Your task to perform on an android device: change your default location settings in chrome Image 0: 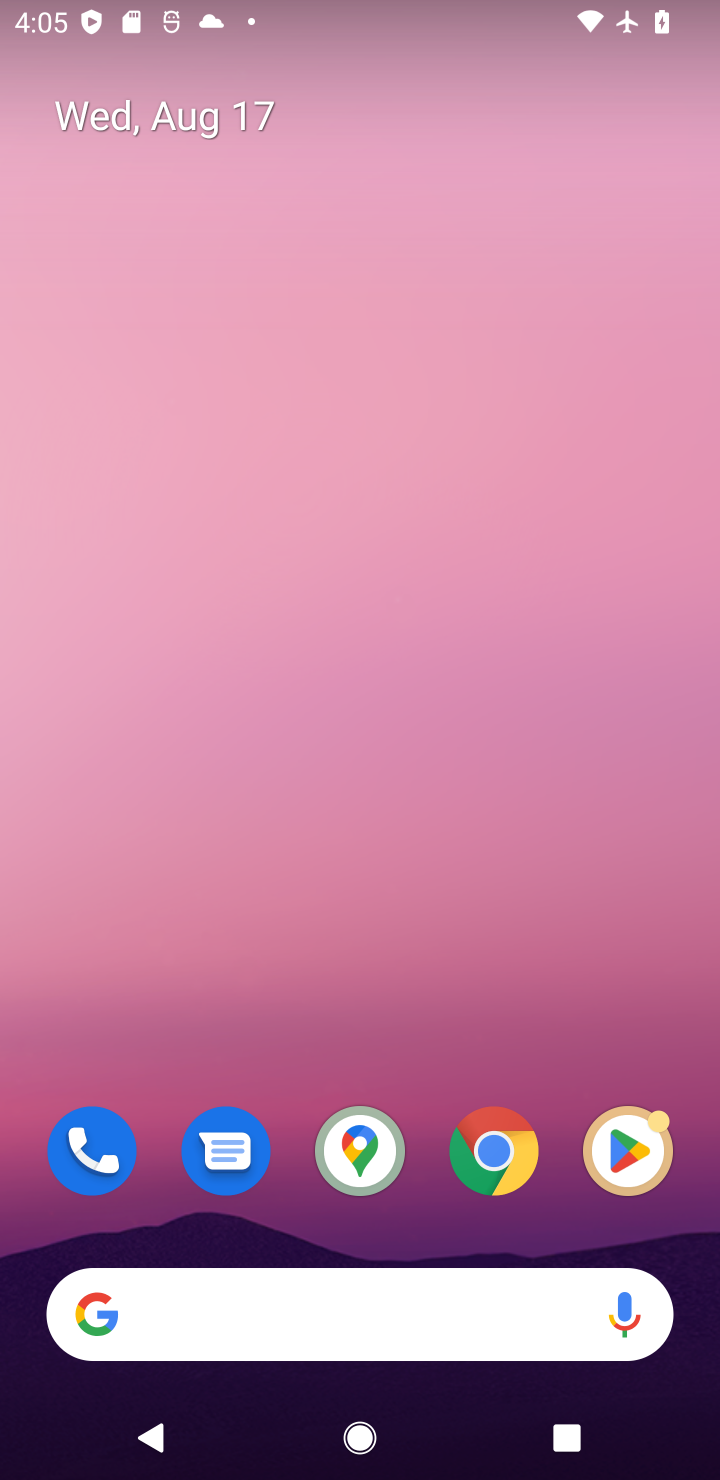
Step 0: drag from (250, 1208) to (250, 308)
Your task to perform on an android device: change your default location settings in chrome Image 1: 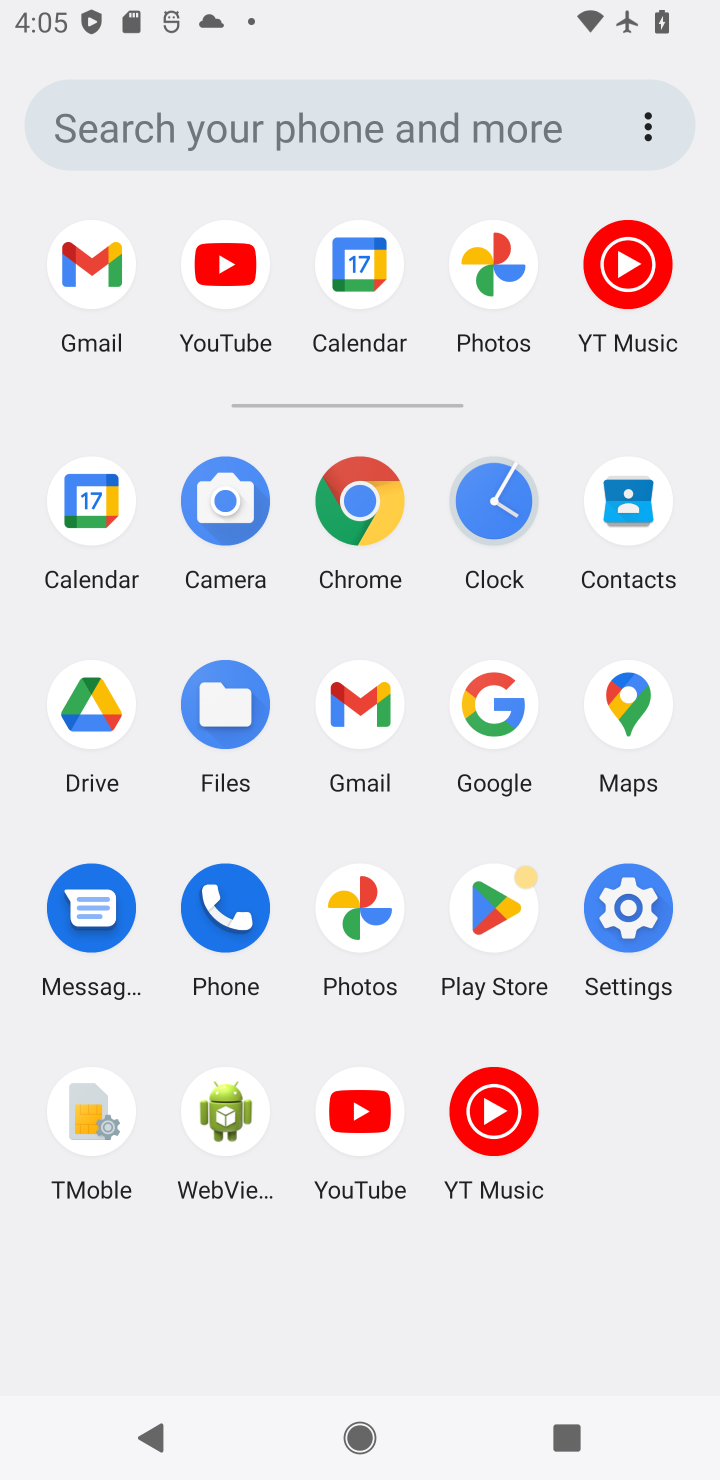
Step 1: click (373, 480)
Your task to perform on an android device: change your default location settings in chrome Image 2: 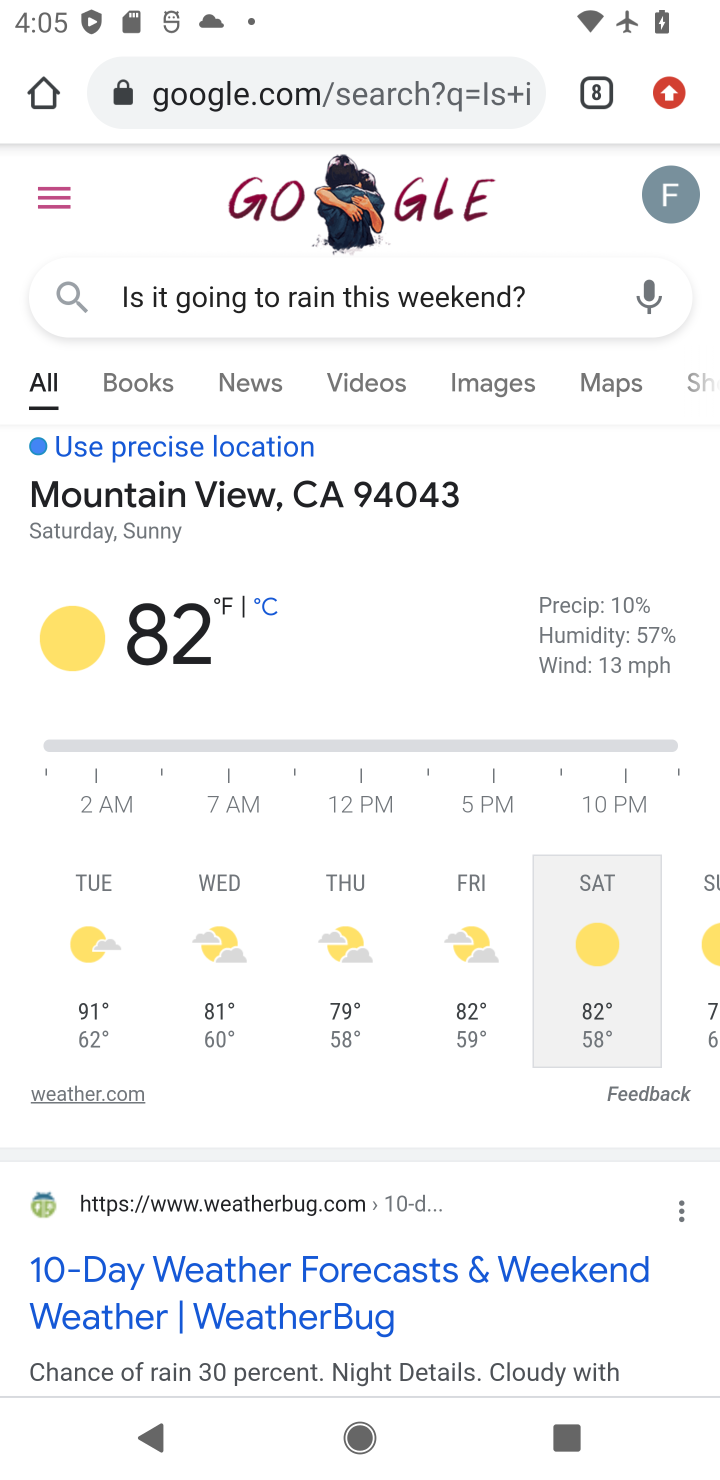
Step 2: click (667, 84)
Your task to perform on an android device: change your default location settings in chrome Image 3: 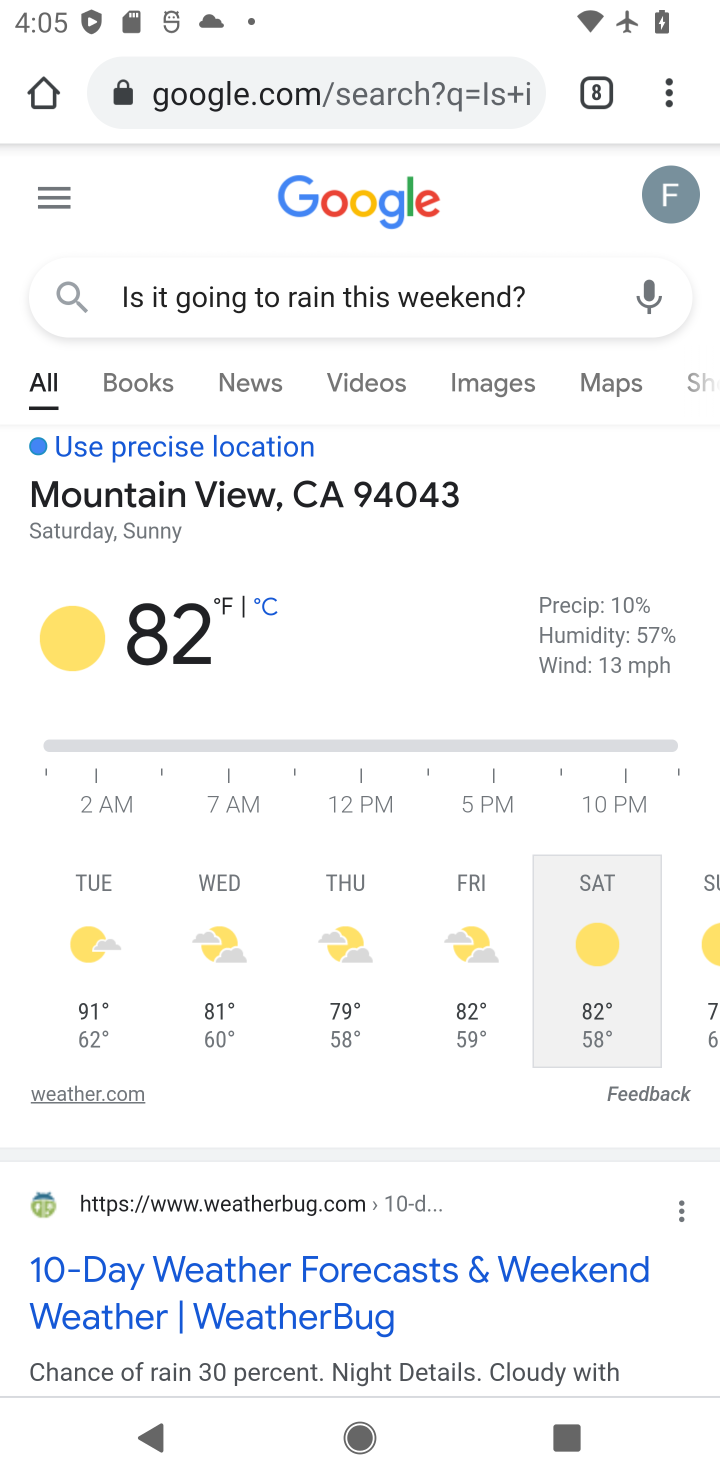
Step 3: click (669, 91)
Your task to perform on an android device: change your default location settings in chrome Image 4: 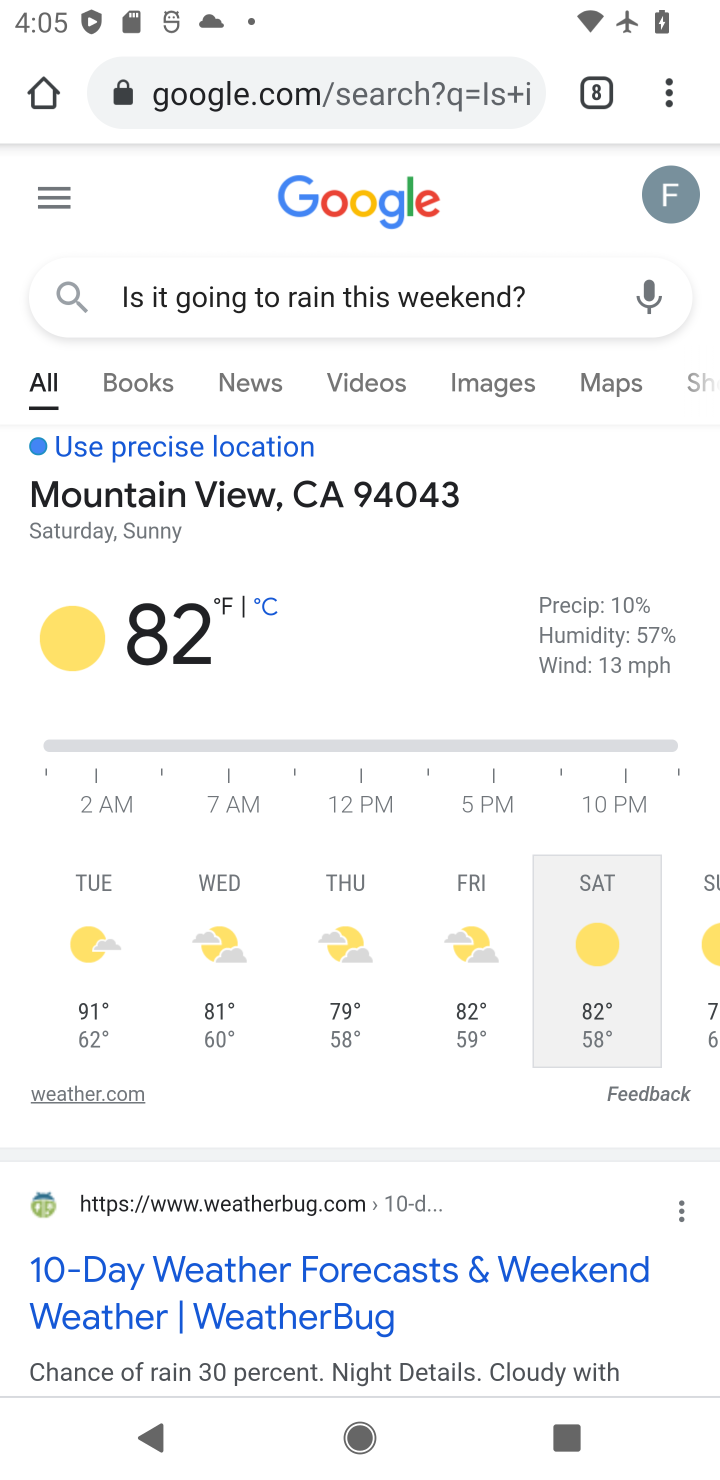
Step 4: click (664, 78)
Your task to perform on an android device: change your default location settings in chrome Image 5: 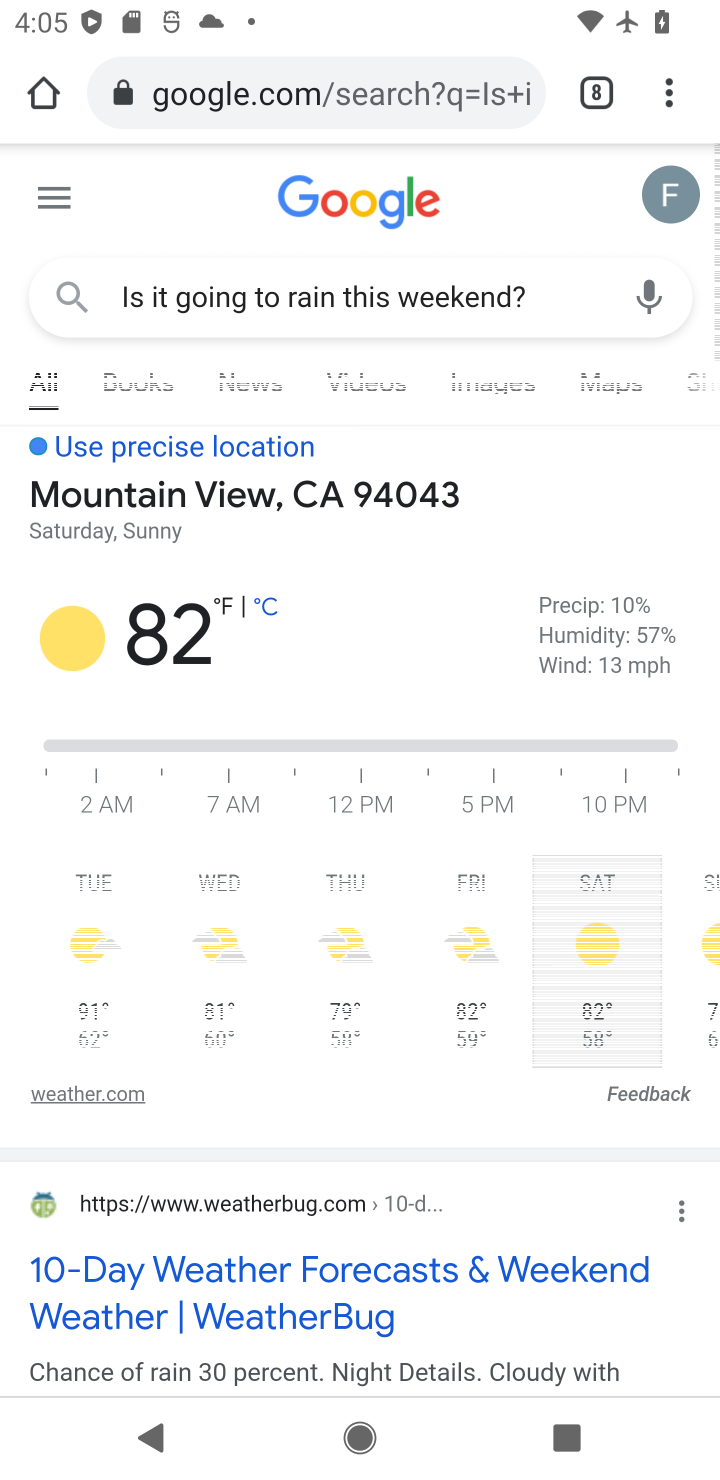
Step 5: click (667, 93)
Your task to perform on an android device: change your default location settings in chrome Image 6: 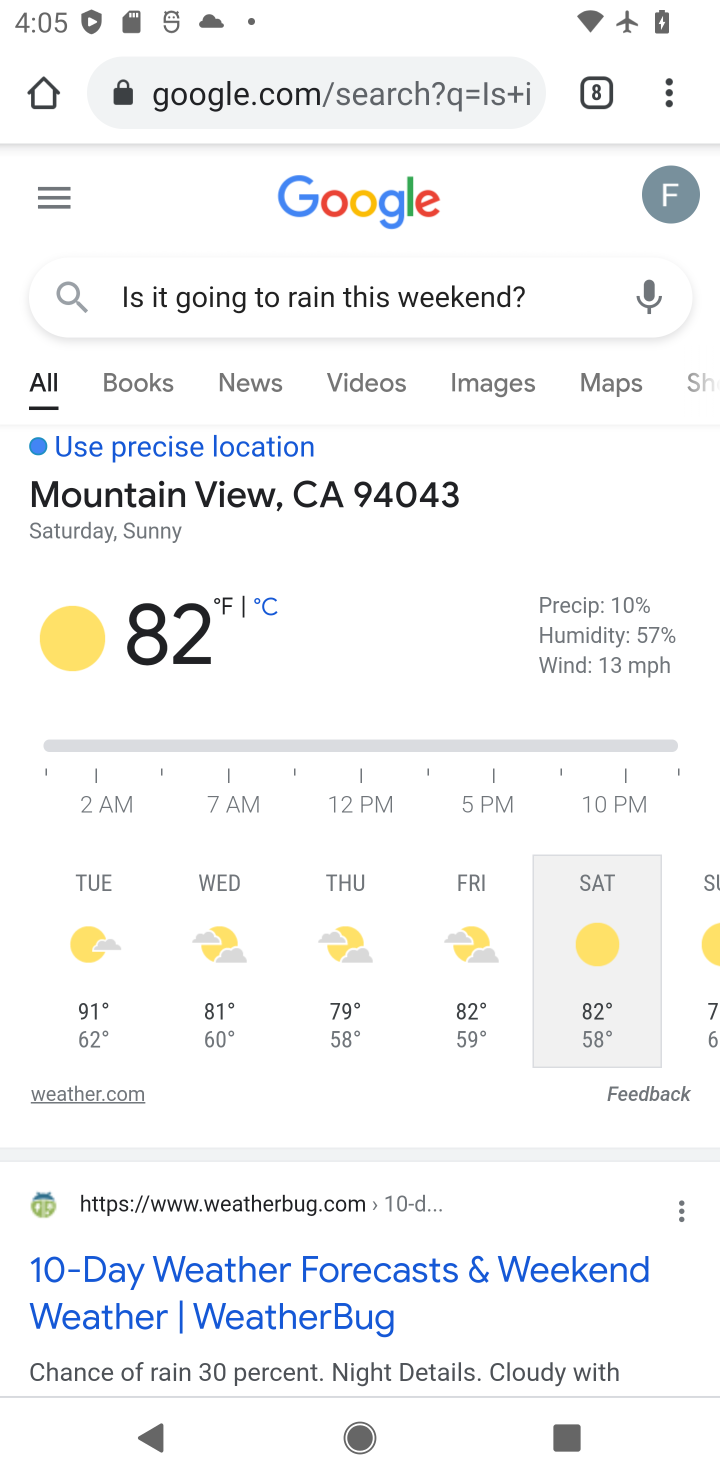
Step 6: click (674, 89)
Your task to perform on an android device: change your default location settings in chrome Image 7: 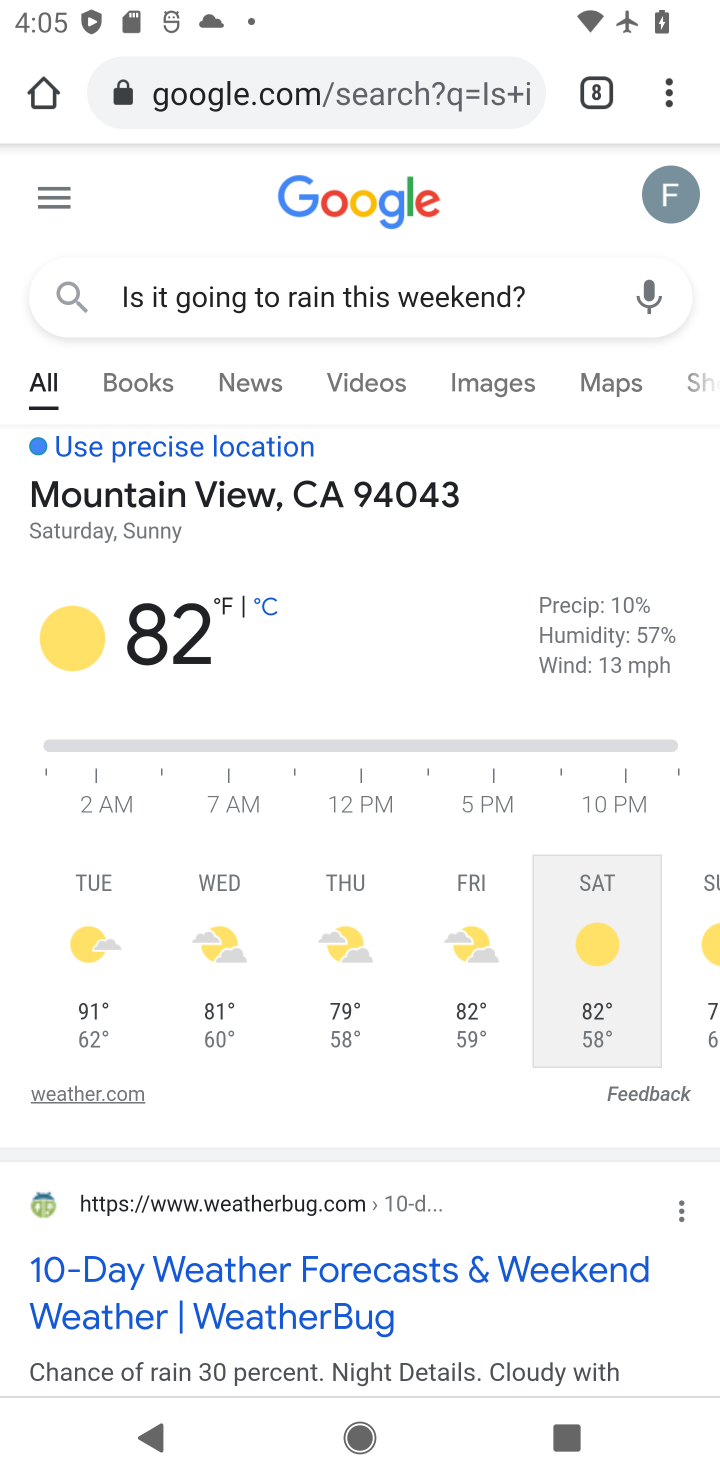
Step 7: click (660, 97)
Your task to perform on an android device: change your default location settings in chrome Image 8: 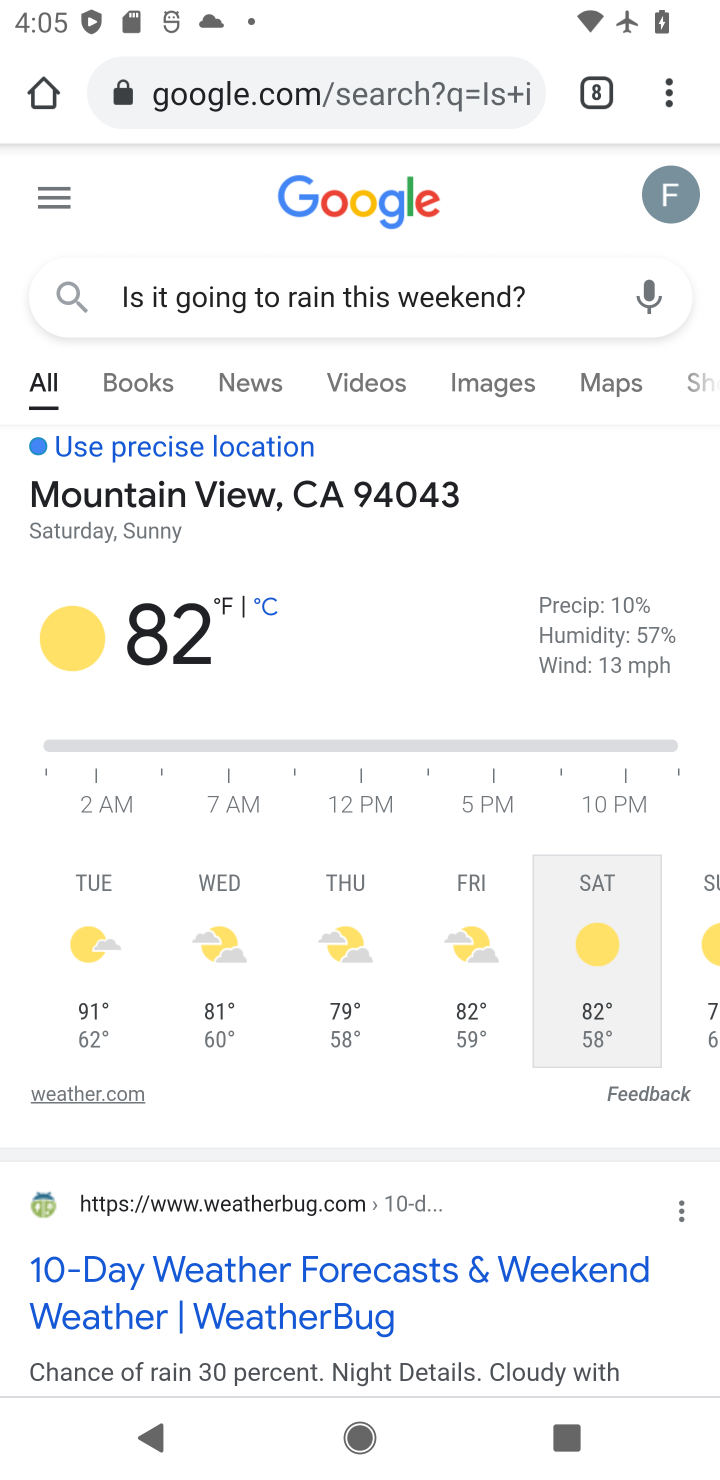
Step 8: click (666, 82)
Your task to perform on an android device: change your default location settings in chrome Image 9: 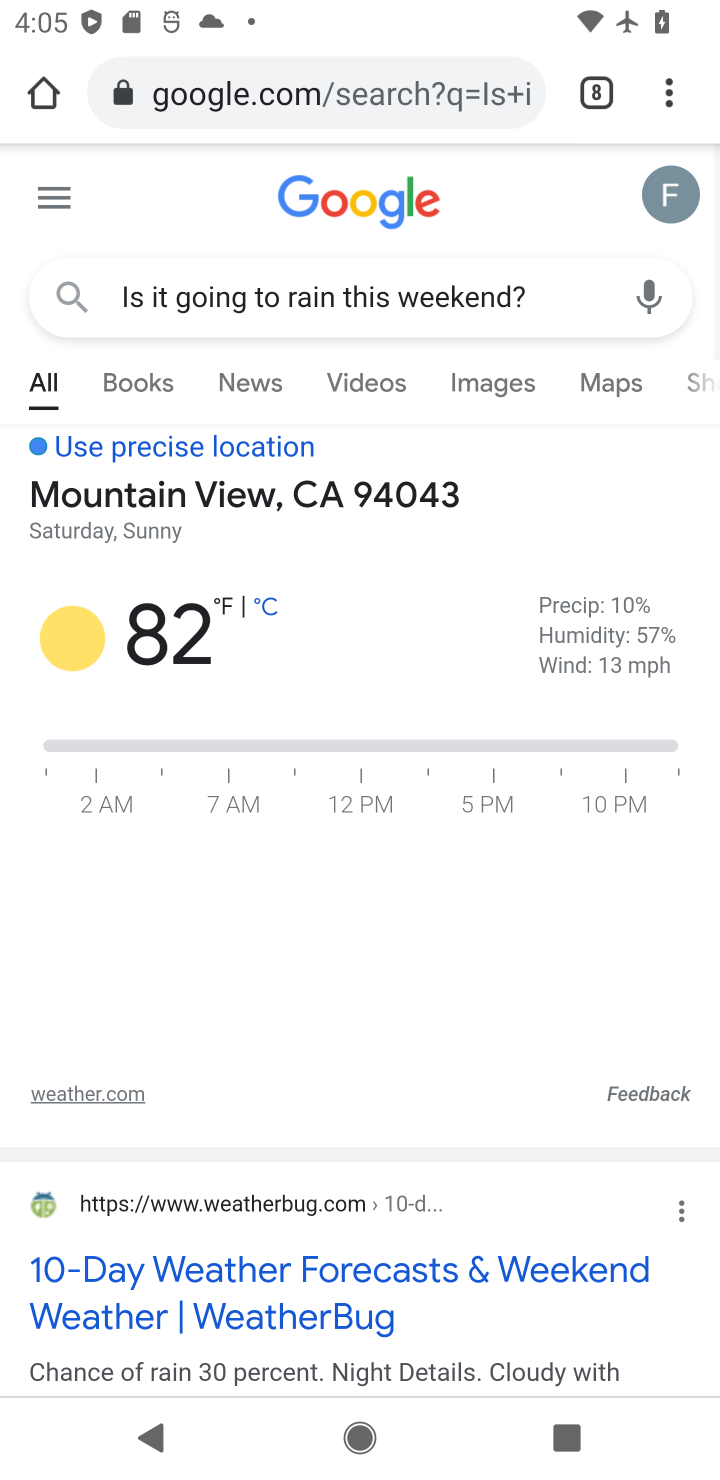
Step 9: click (664, 82)
Your task to perform on an android device: change your default location settings in chrome Image 10: 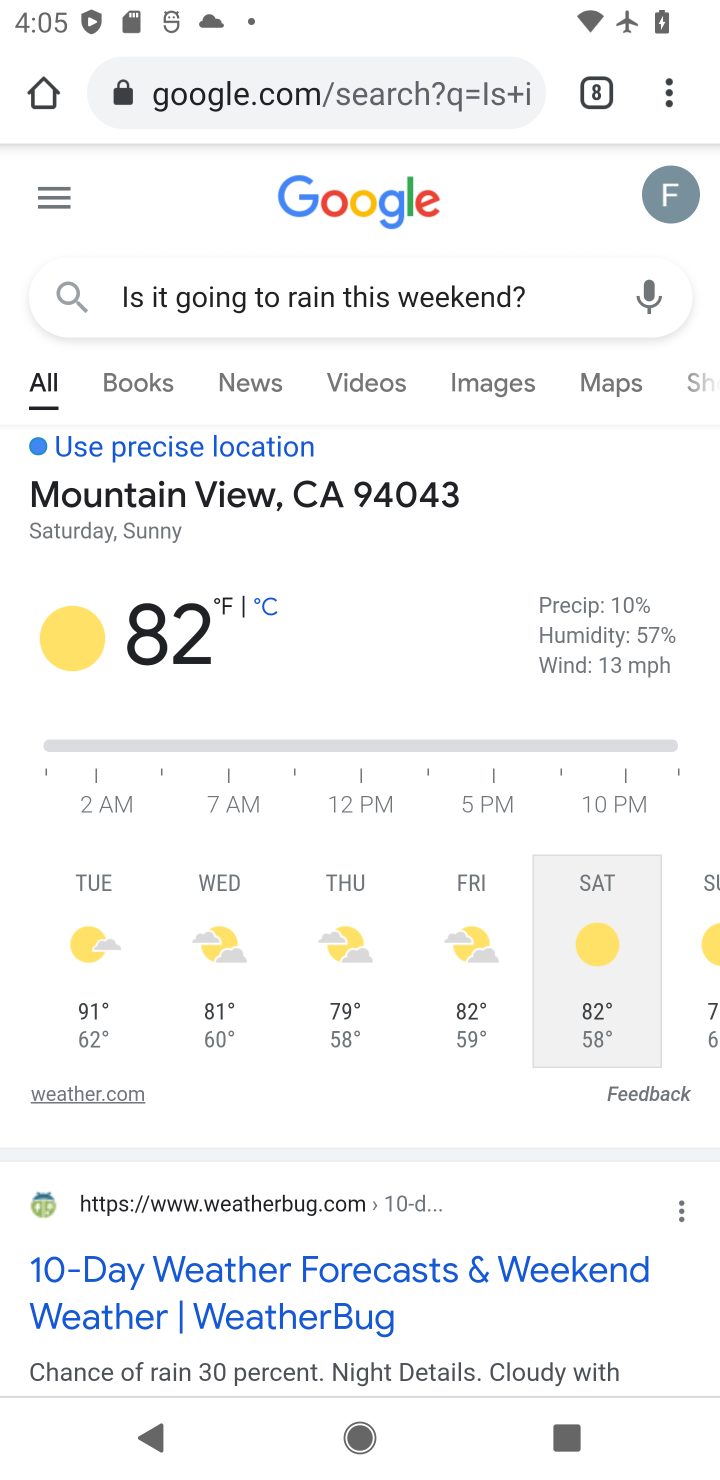
Step 10: click (648, 76)
Your task to perform on an android device: change your default location settings in chrome Image 11: 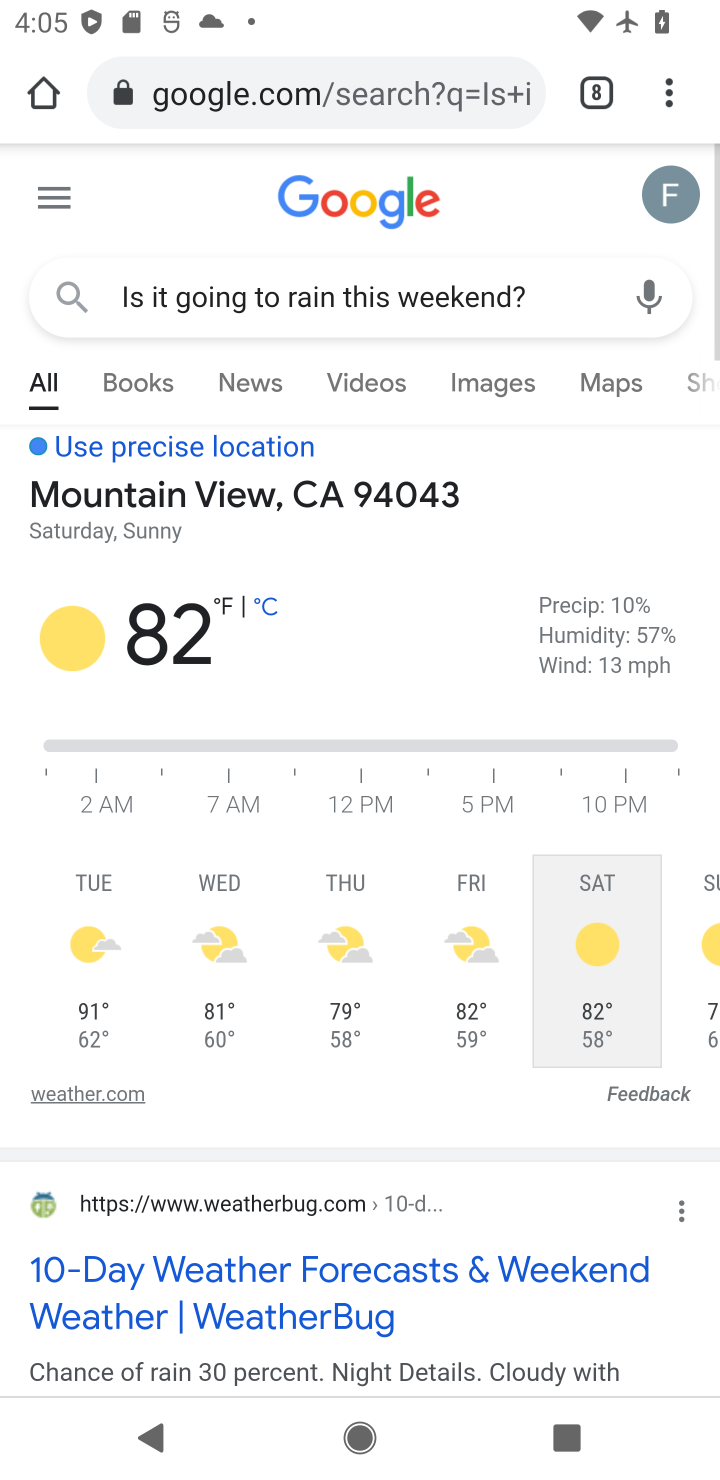
Step 11: click (648, 76)
Your task to perform on an android device: change your default location settings in chrome Image 12: 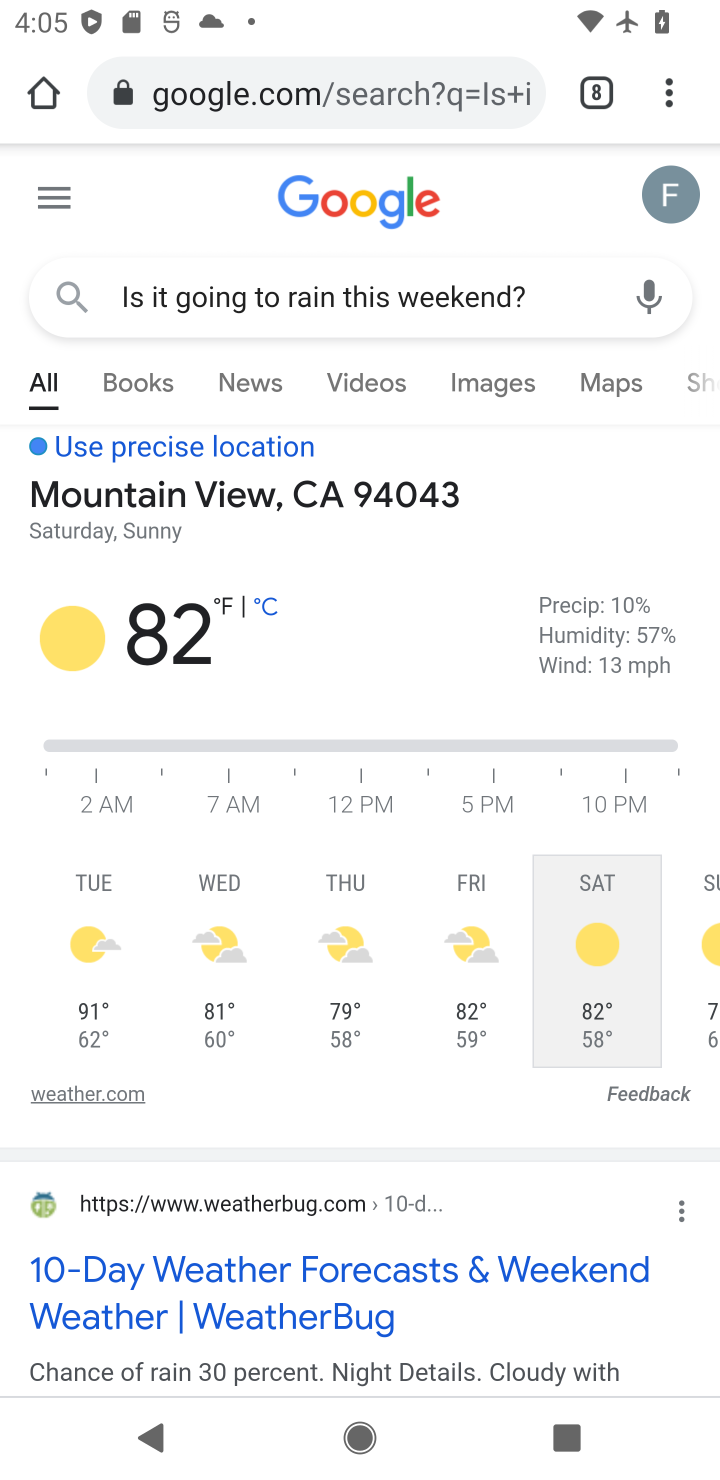
Step 12: click (629, 76)
Your task to perform on an android device: change your default location settings in chrome Image 13: 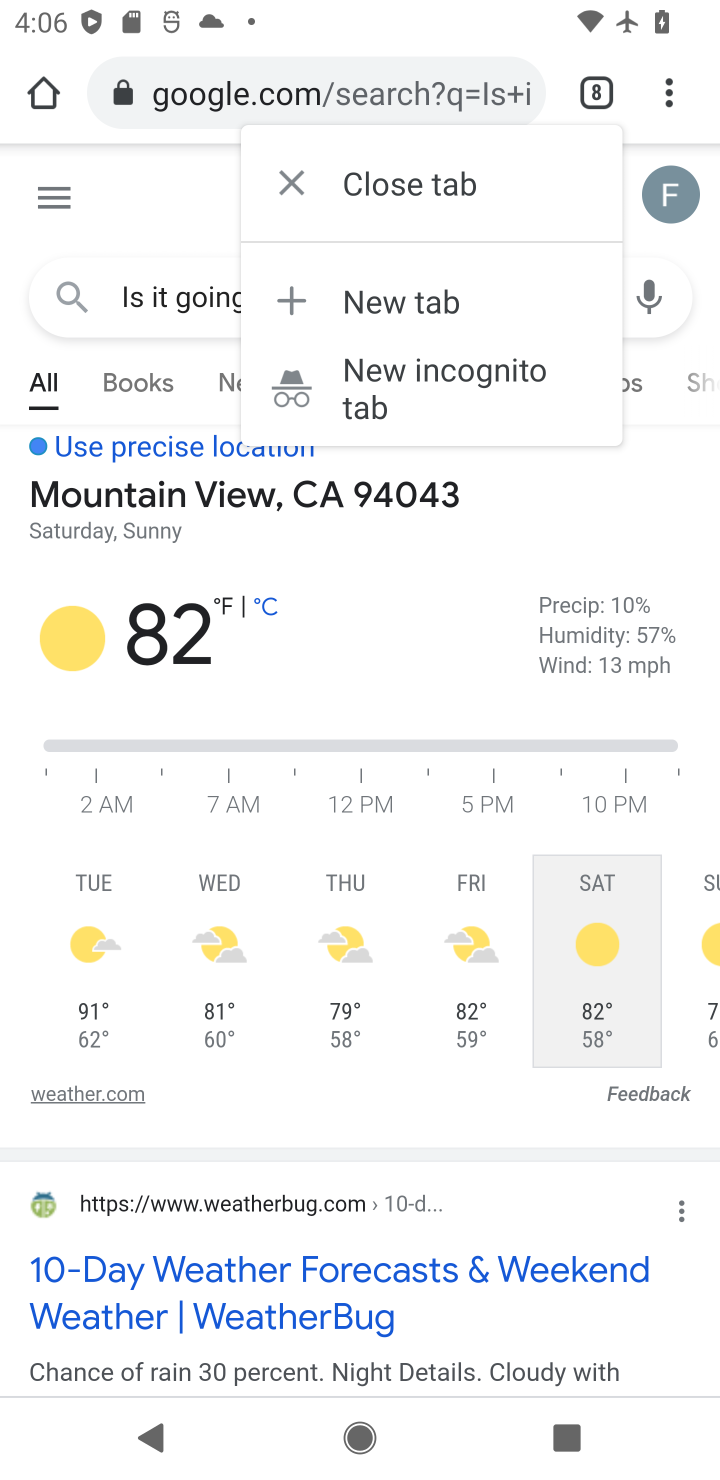
Step 13: click (657, 89)
Your task to perform on an android device: change your default location settings in chrome Image 14: 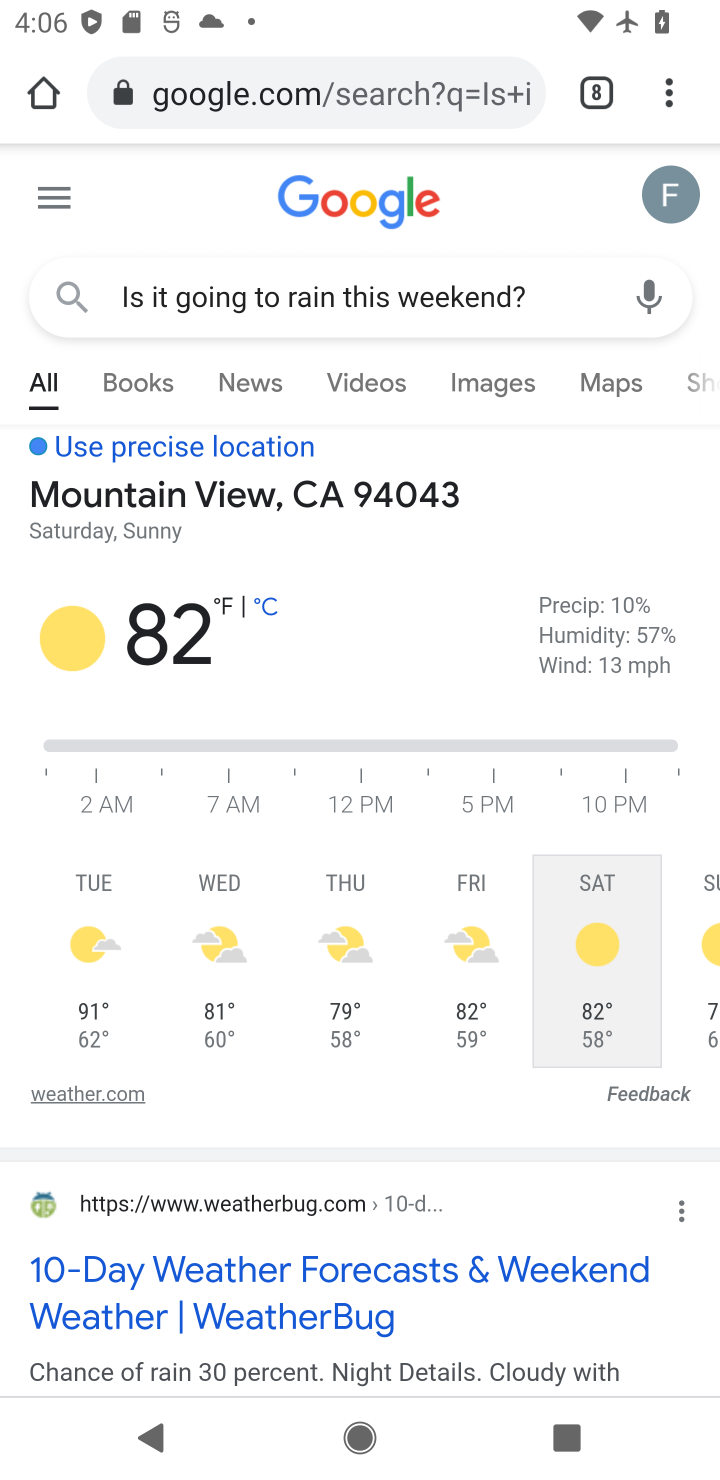
Step 14: click (657, 89)
Your task to perform on an android device: change your default location settings in chrome Image 15: 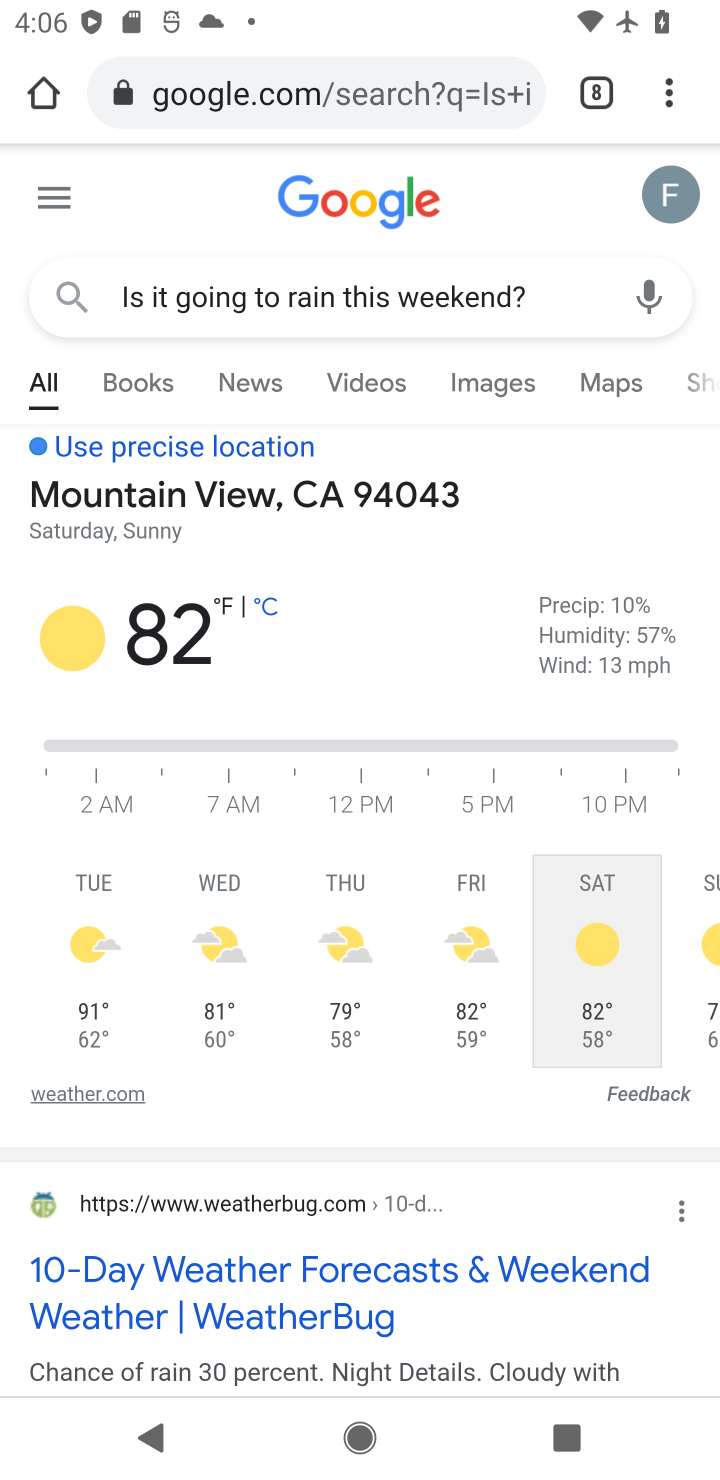
Step 15: click (661, 81)
Your task to perform on an android device: change your default location settings in chrome Image 16: 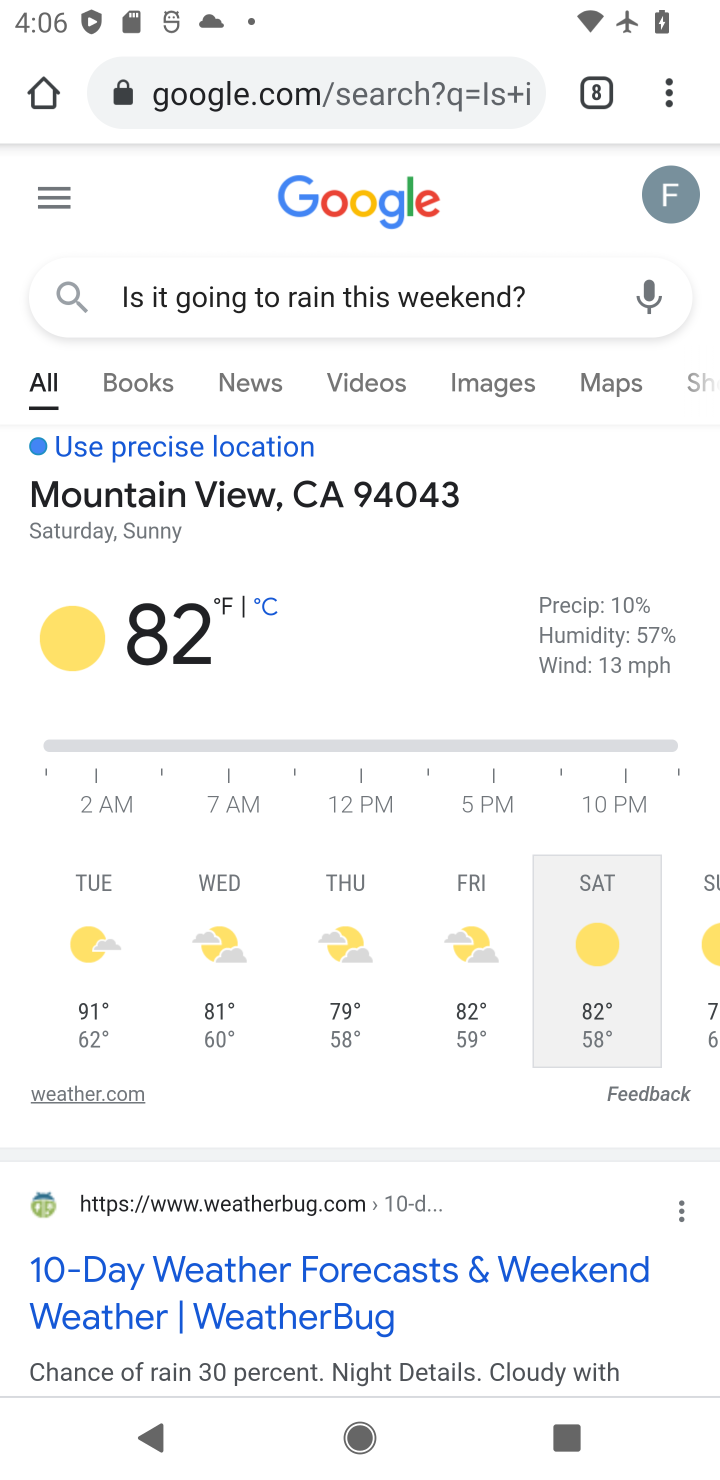
Step 16: click (649, 84)
Your task to perform on an android device: change your default location settings in chrome Image 17: 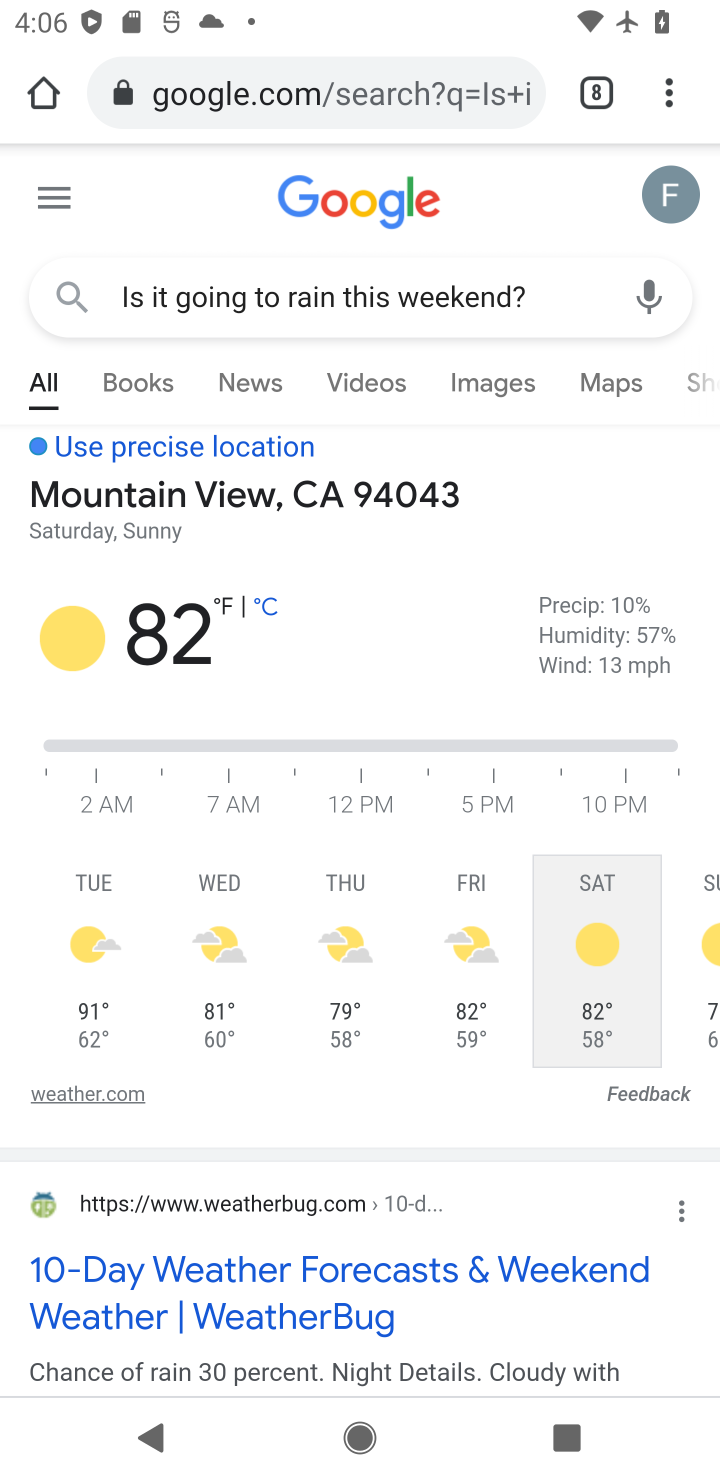
Step 17: click (649, 84)
Your task to perform on an android device: change your default location settings in chrome Image 18: 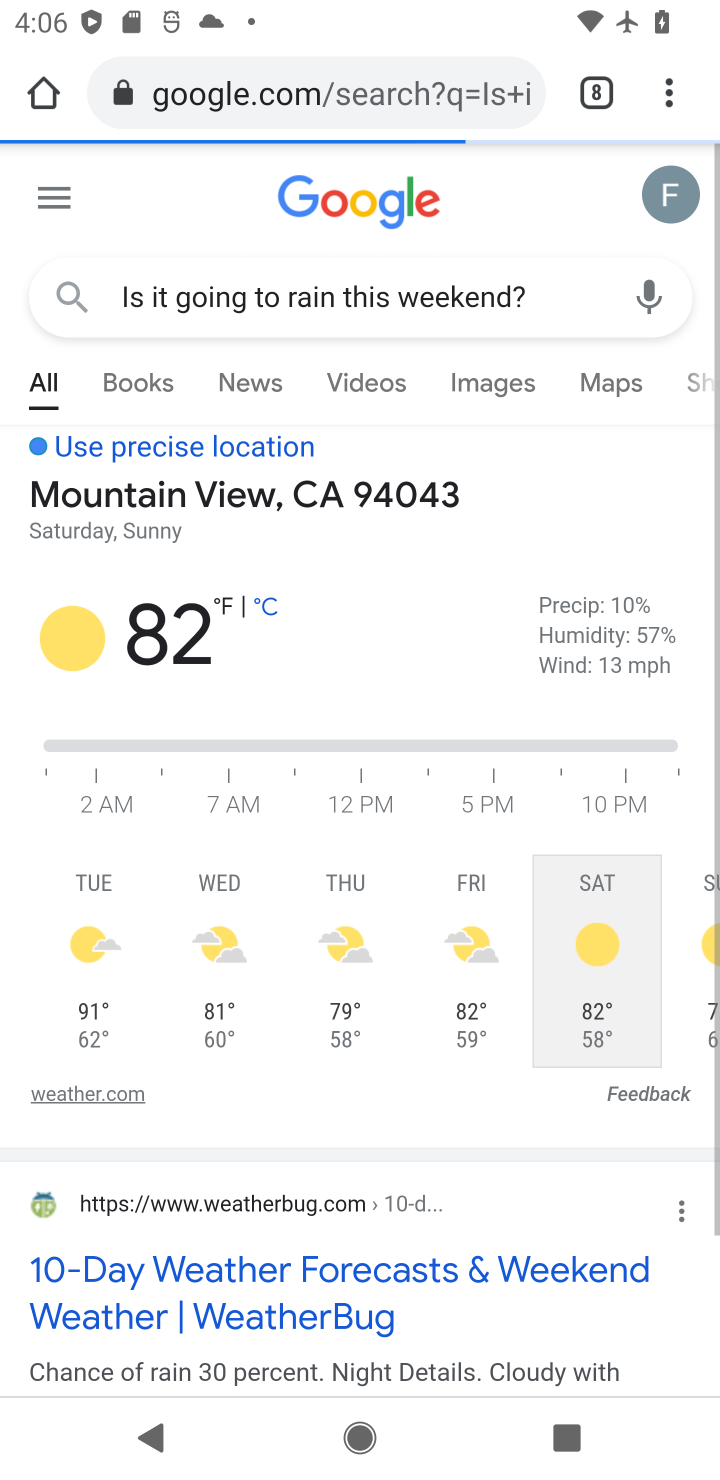
Step 18: click (658, 103)
Your task to perform on an android device: change your default location settings in chrome Image 19: 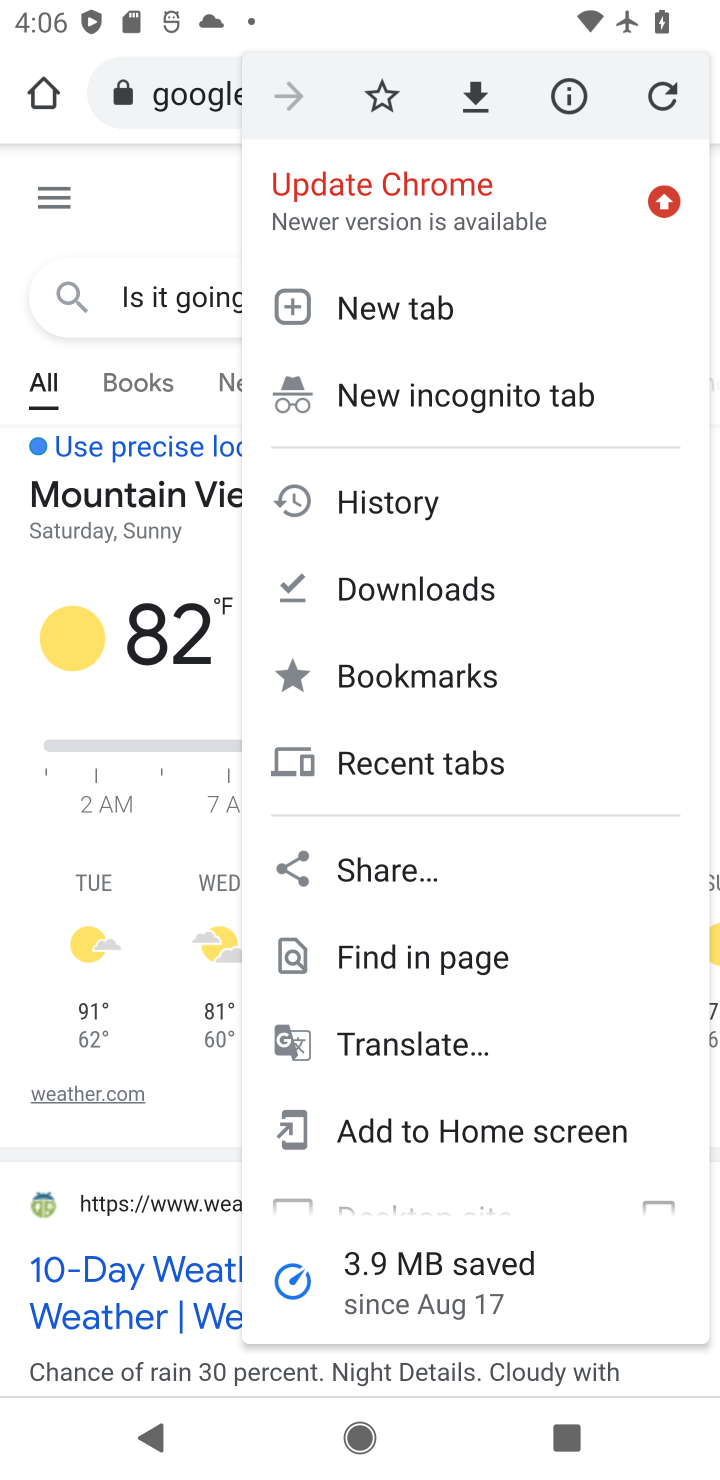
Step 19: drag from (471, 1136) to (524, 280)
Your task to perform on an android device: change your default location settings in chrome Image 20: 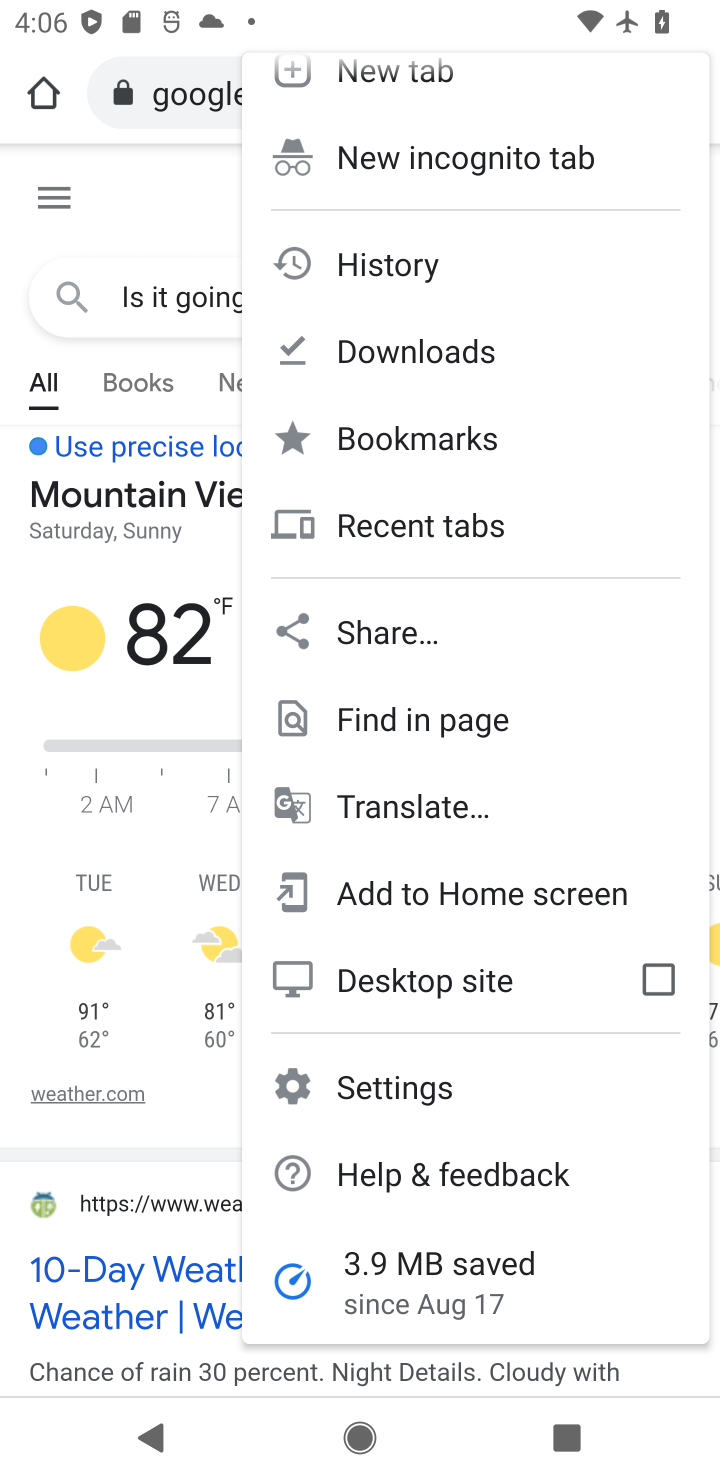
Step 20: click (386, 1095)
Your task to perform on an android device: change your default location settings in chrome Image 21: 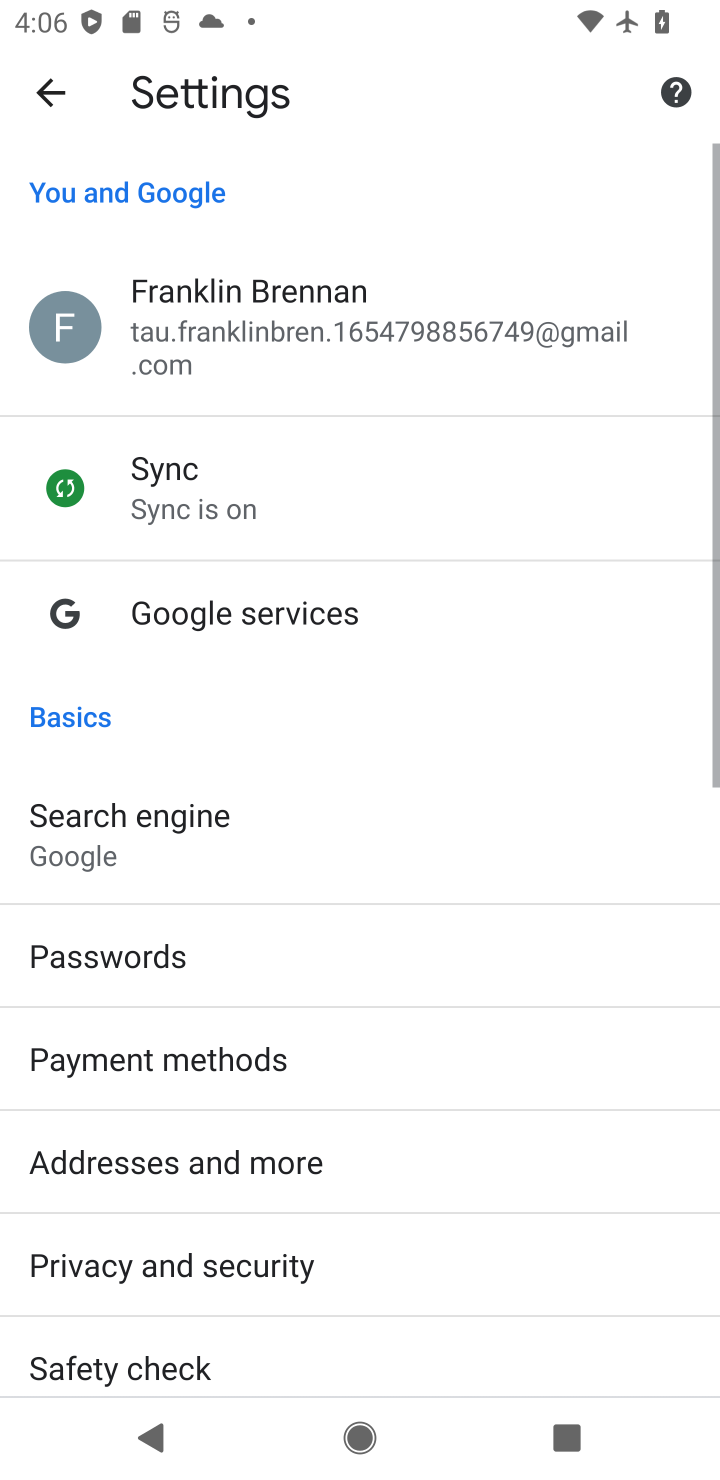
Step 21: drag from (263, 1273) to (383, 216)
Your task to perform on an android device: change your default location settings in chrome Image 22: 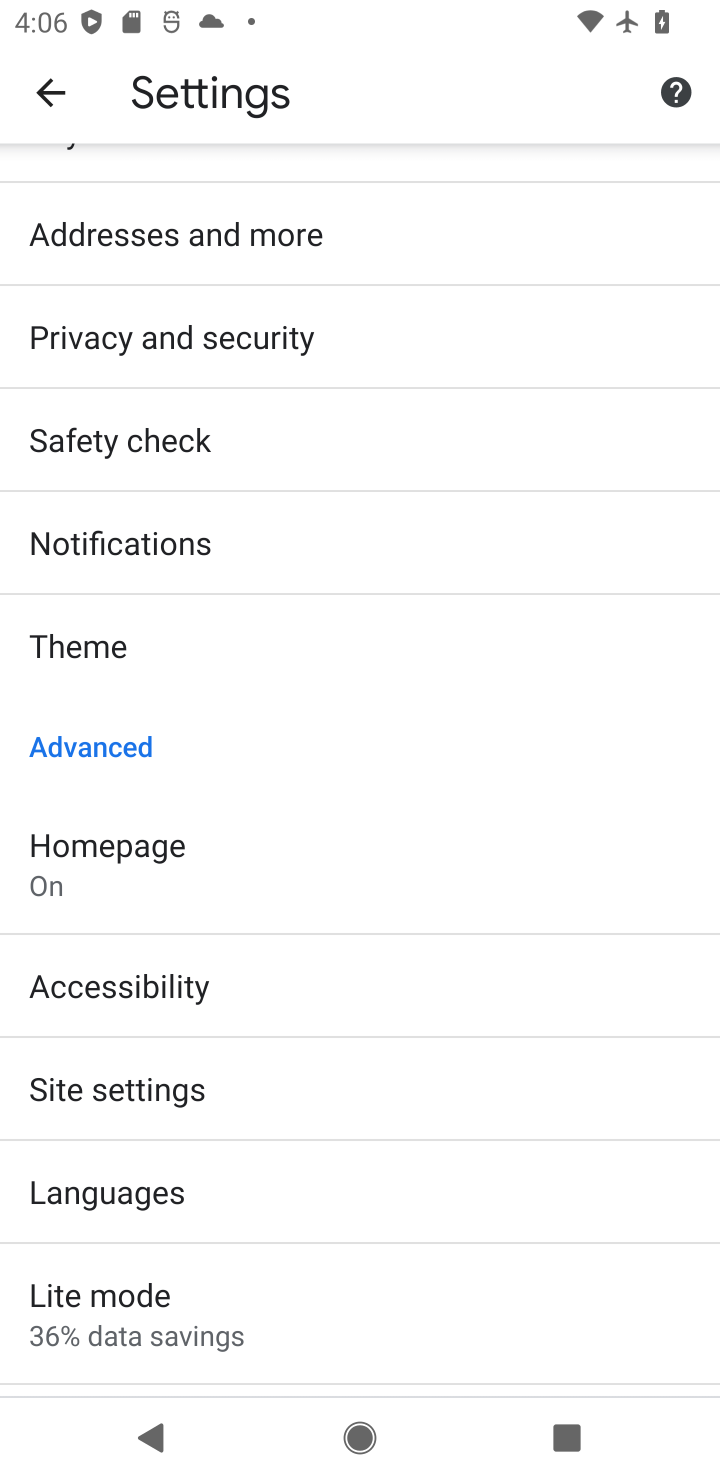
Step 22: drag from (240, 1093) to (317, 607)
Your task to perform on an android device: change your default location settings in chrome Image 23: 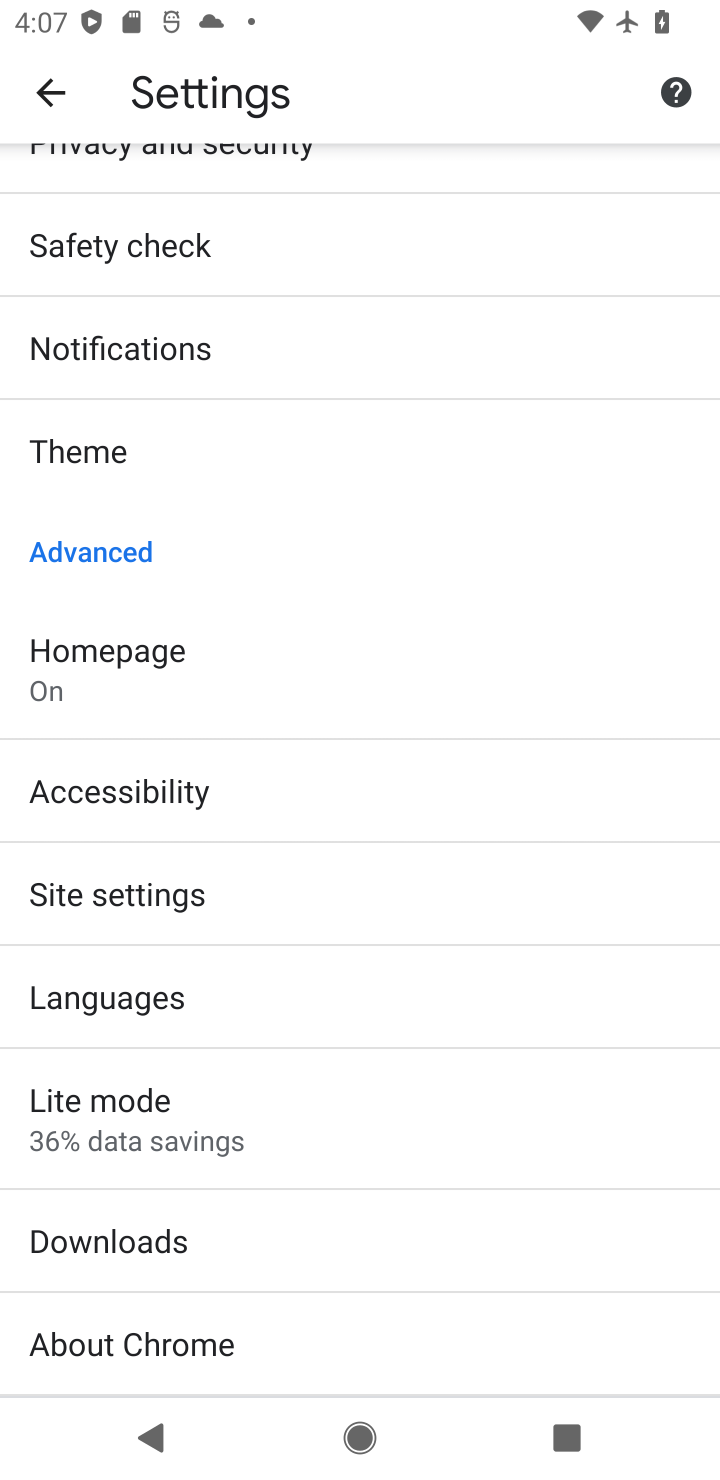
Step 23: click (290, 875)
Your task to perform on an android device: change your default location settings in chrome Image 24: 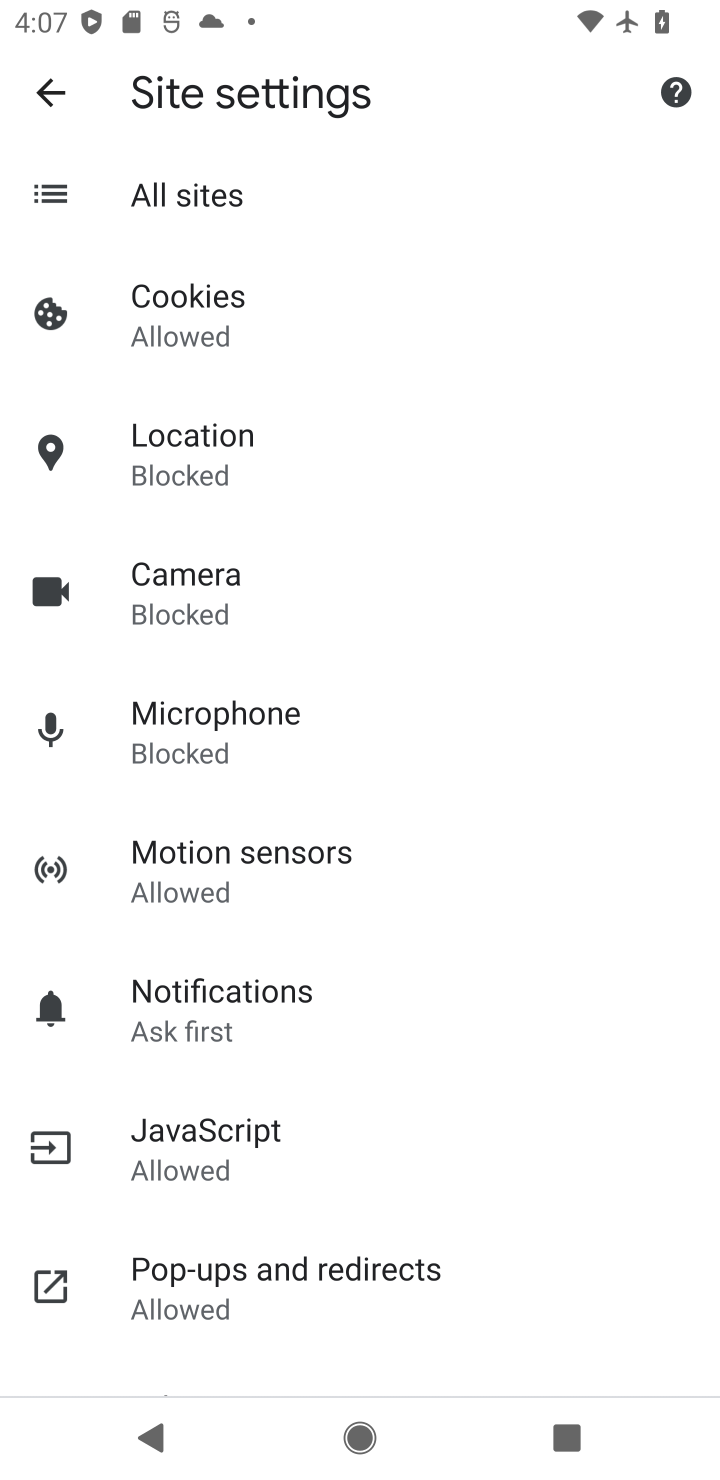
Step 24: click (234, 446)
Your task to perform on an android device: change your default location settings in chrome Image 25: 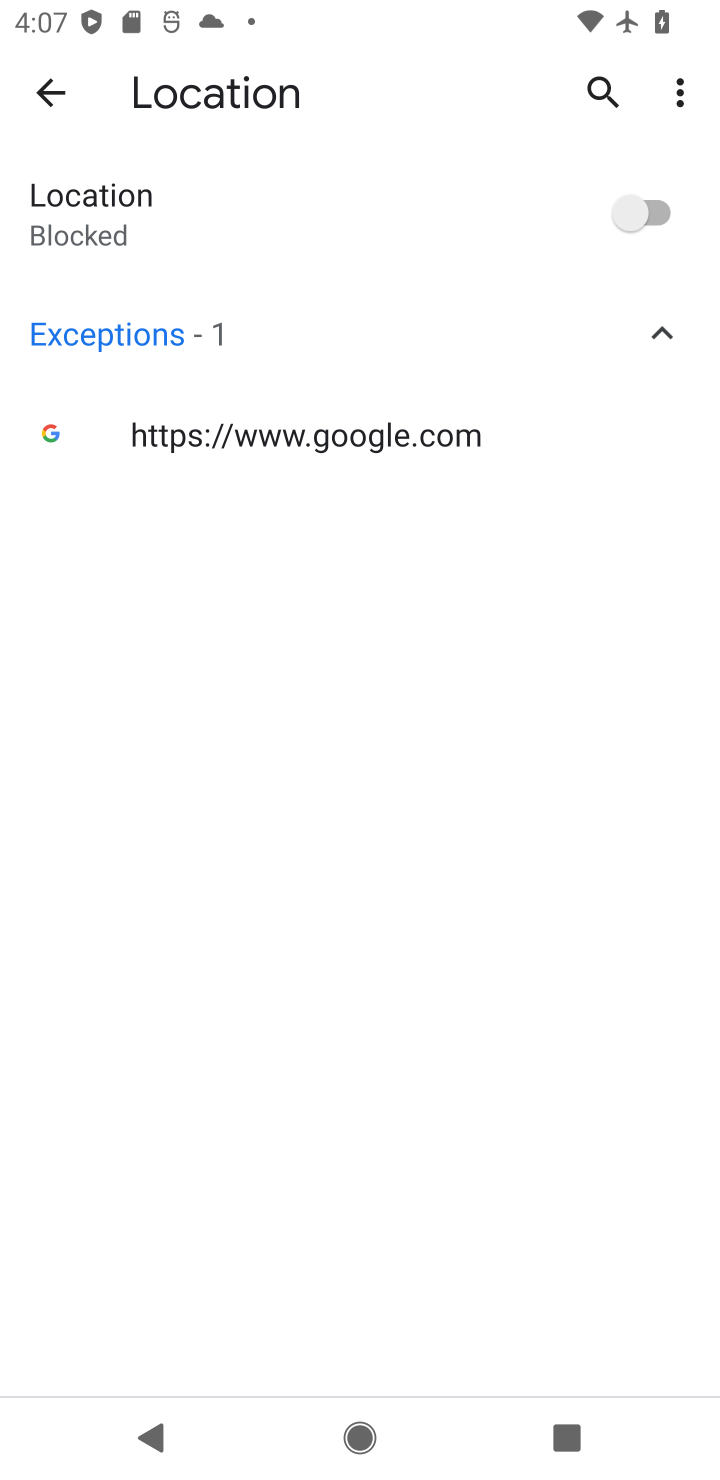
Step 25: click (653, 191)
Your task to perform on an android device: change your default location settings in chrome Image 26: 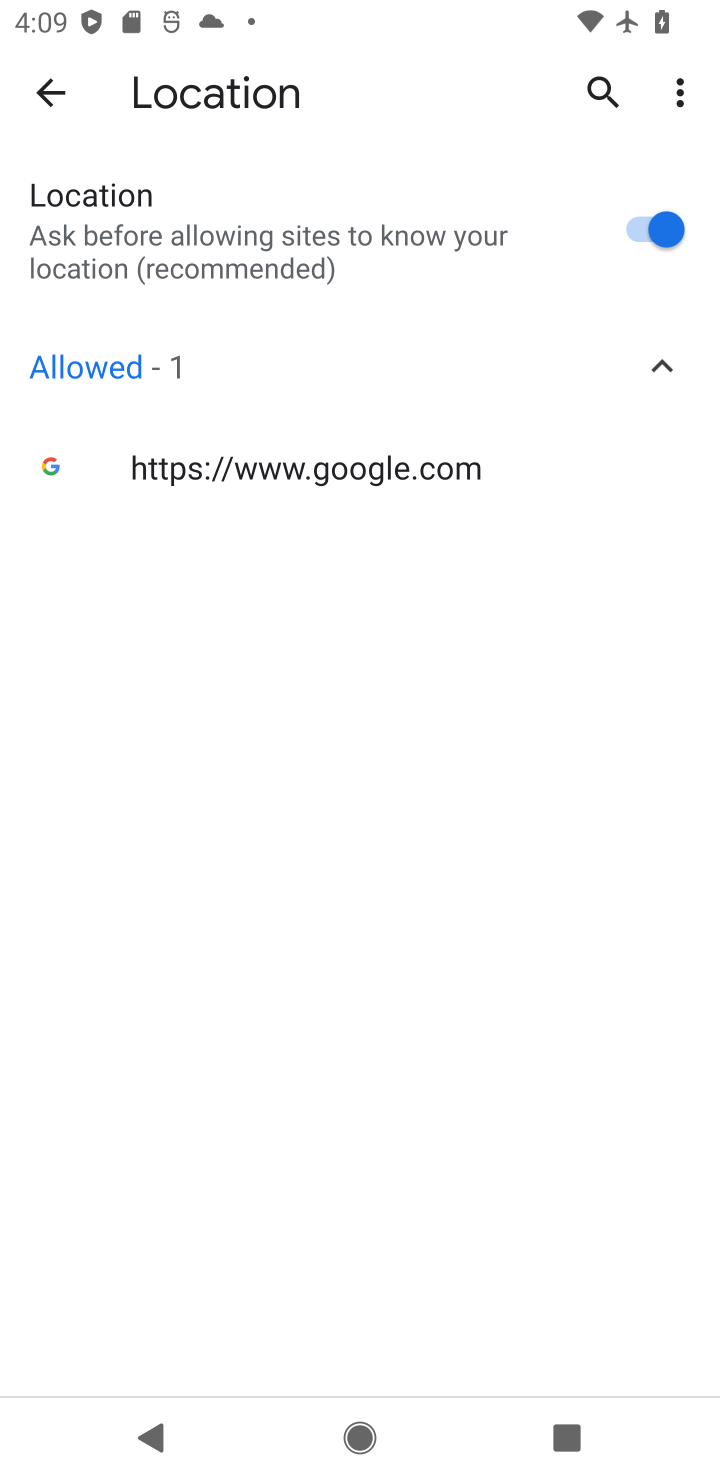
Step 26: task complete